Your task to perform on an android device: change text size in settings app Image 0: 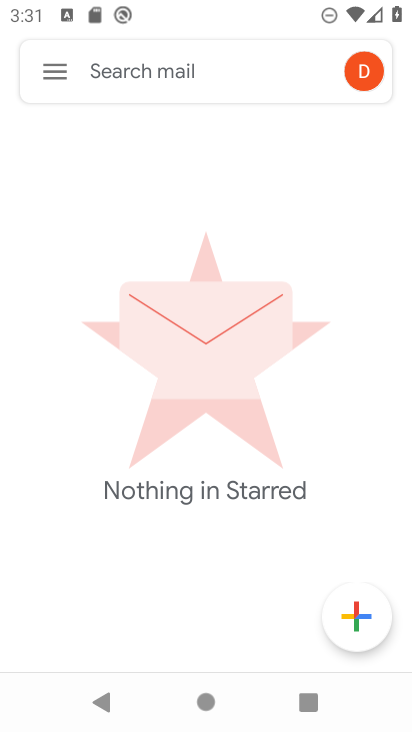
Step 0: press home button
Your task to perform on an android device: change text size in settings app Image 1: 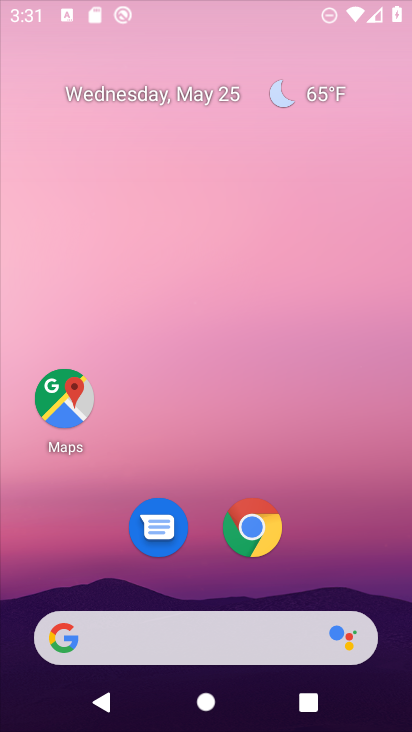
Step 1: drag from (263, 691) to (319, 10)
Your task to perform on an android device: change text size in settings app Image 2: 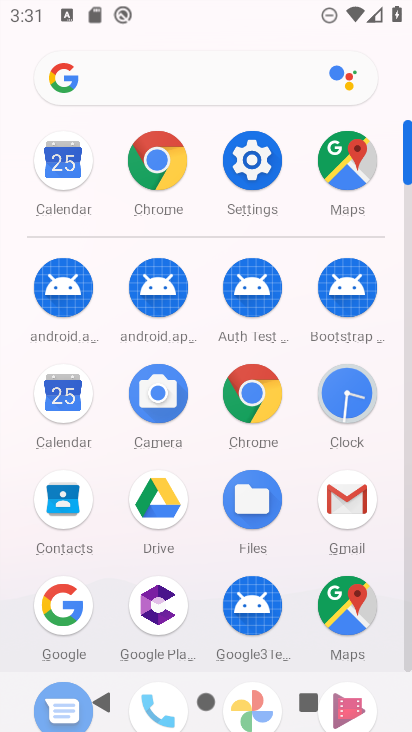
Step 2: click (243, 161)
Your task to perform on an android device: change text size in settings app Image 3: 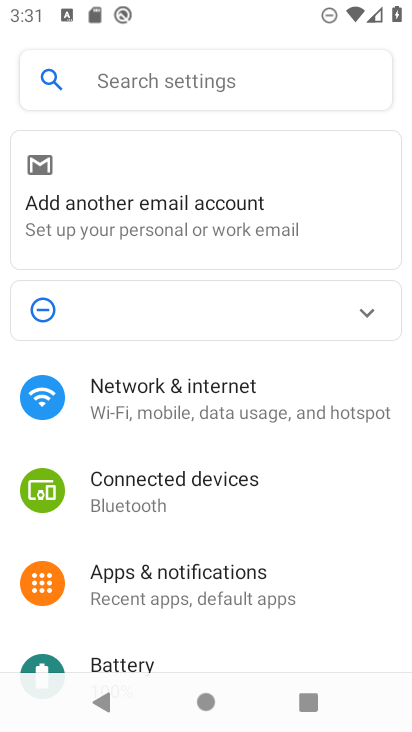
Step 3: drag from (252, 585) to (197, 175)
Your task to perform on an android device: change text size in settings app Image 4: 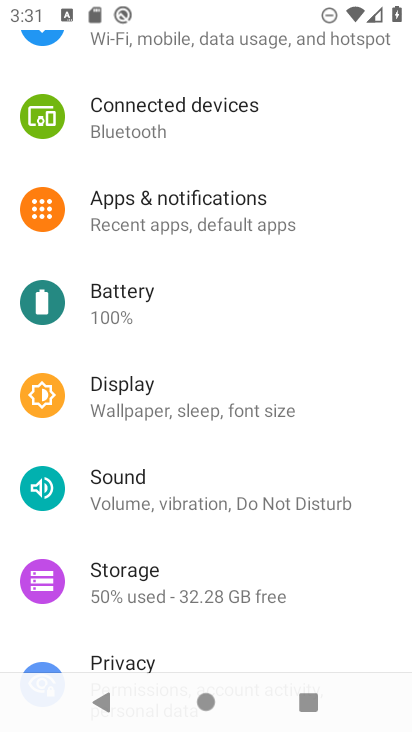
Step 4: drag from (300, 618) to (276, 126)
Your task to perform on an android device: change text size in settings app Image 5: 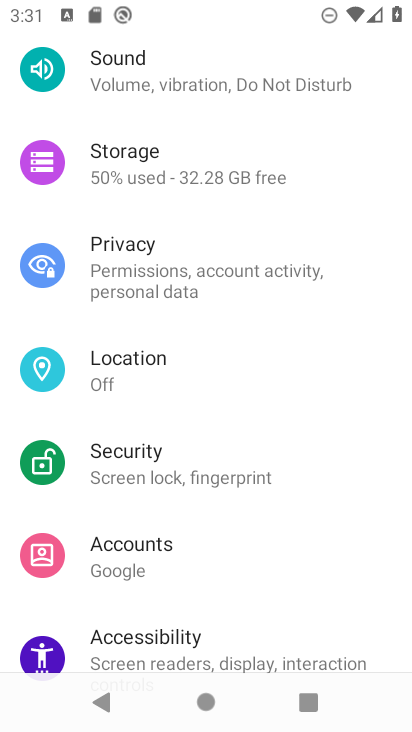
Step 5: drag from (224, 591) to (242, 72)
Your task to perform on an android device: change text size in settings app Image 6: 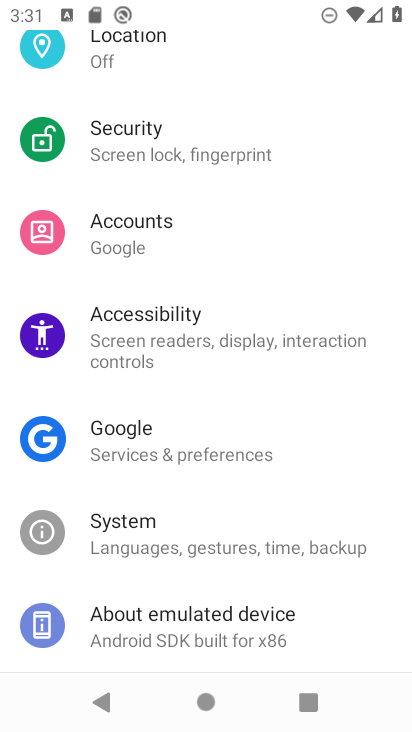
Step 6: click (175, 337)
Your task to perform on an android device: change text size in settings app Image 7: 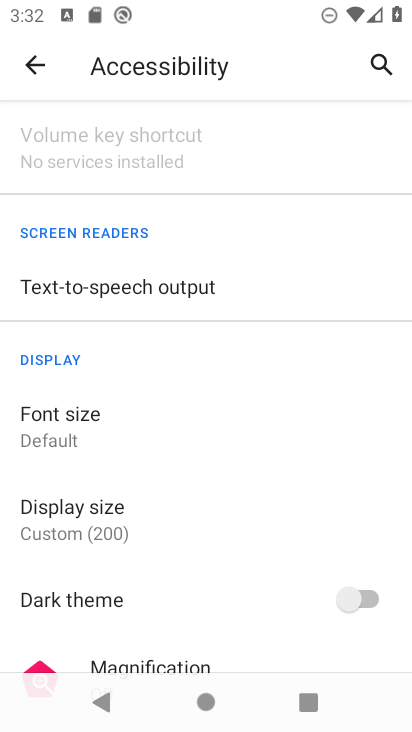
Step 7: click (105, 436)
Your task to perform on an android device: change text size in settings app Image 8: 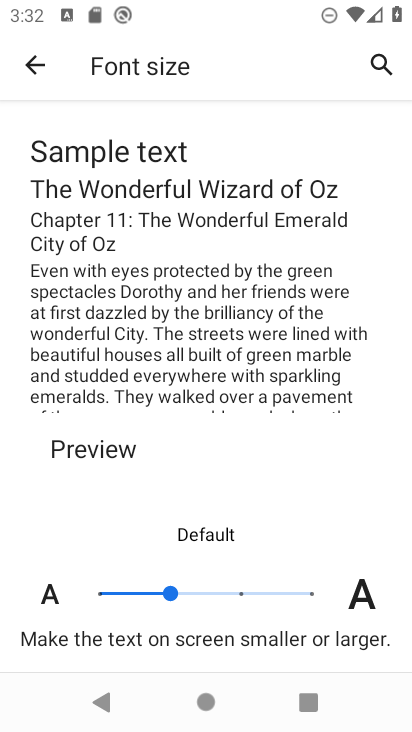
Step 8: click (125, 595)
Your task to perform on an android device: change text size in settings app Image 9: 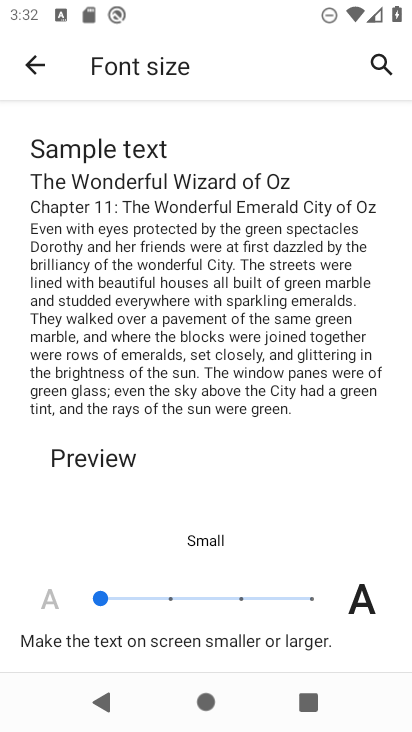
Step 9: task complete